Your task to perform on an android device: choose inbox layout in the gmail app Image 0: 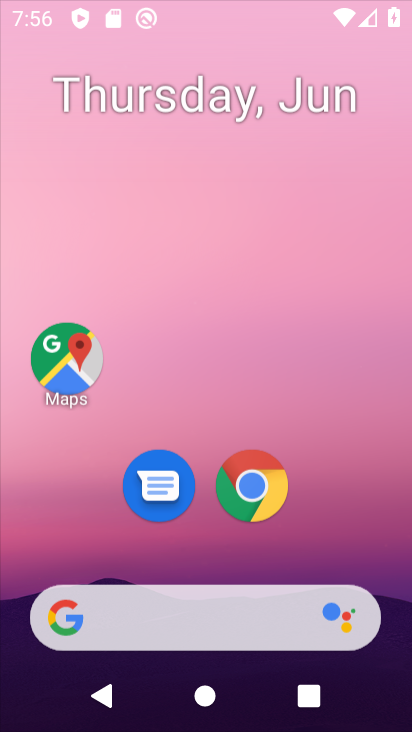
Step 0: click (243, 99)
Your task to perform on an android device: choose inbox layout in the gmail app Image 1: 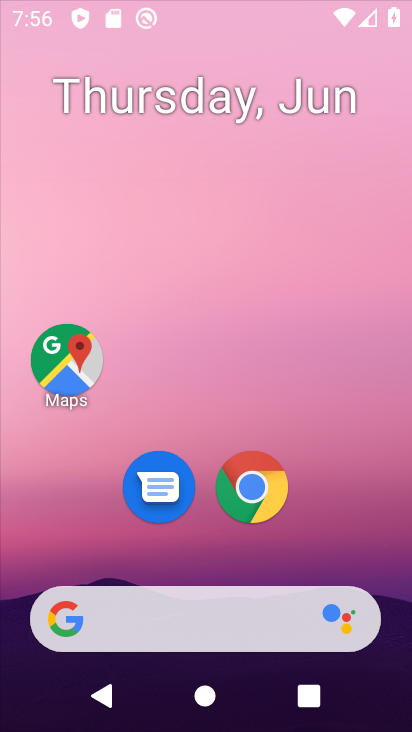
Step 1: drag from (218, 549) to (243, 140)
Your task to perform on an android device: choose inbox layout in the gmail app Image 2: 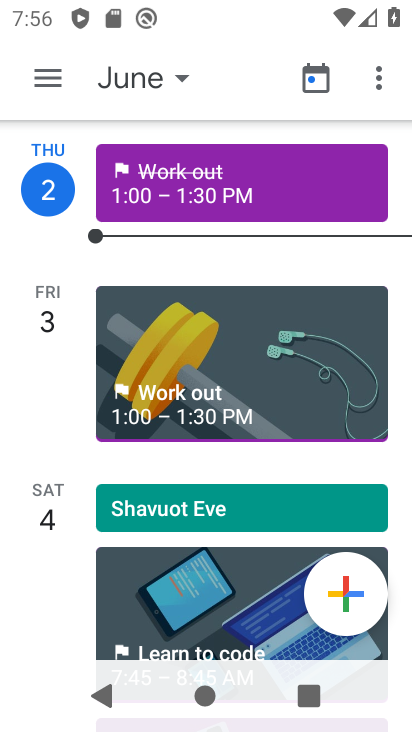
Step 2: drag from (227, 543) to (261, 153)
Your task to perform on an android device: choose inbox layout in the gmail app Image 3: 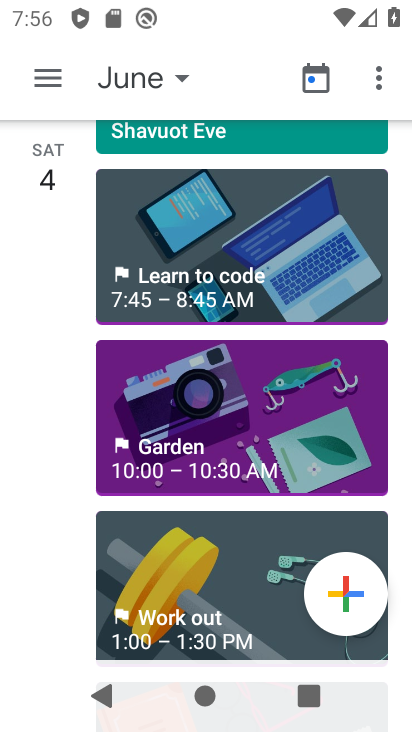
Step 3: press home button
Your task to perform on an android device: choose inbox layout in the gmail app Image 4: 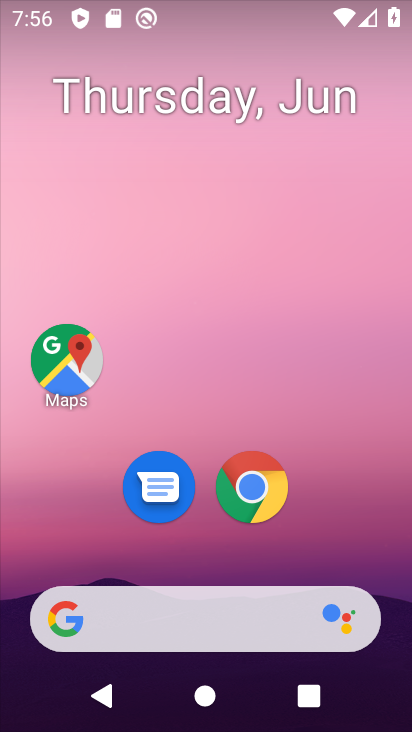
Step 4: drag from (209, 561) to (272, 141)
Your task to perform on an android device: choose inbox layout in the gmail app Image 5: 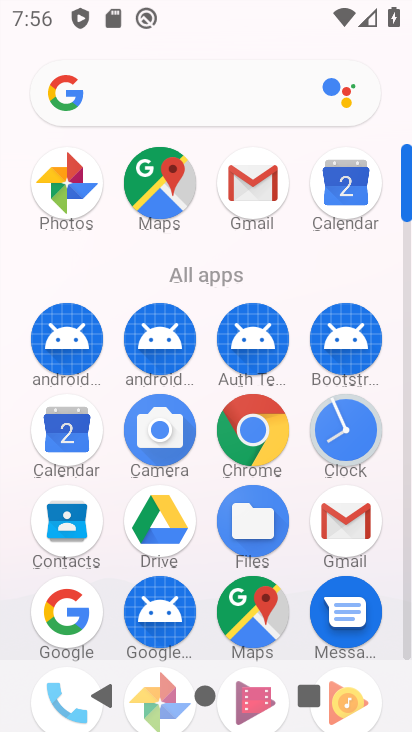
Step 5: click (349, 513)
Your task to perform on an android device: choose inbox layout in the gmail app Image 6: 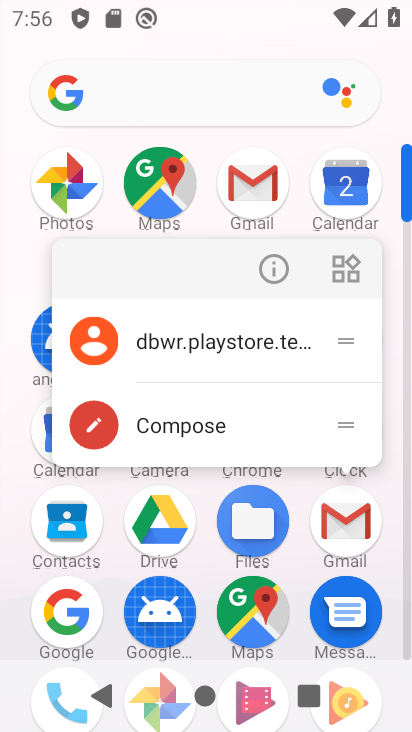
Step 6: click (293, 278)
Your task to perform on an android device: choose inbox layout in the gmail app Image 7: 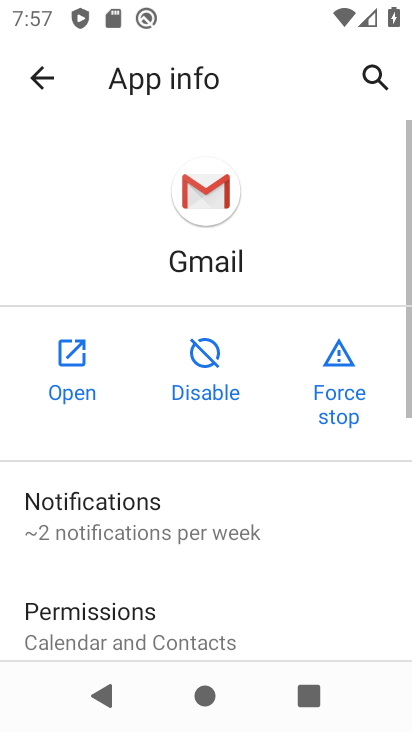
Step 7: click (59, 388)
Your task to perform on an android device: choose inbox layout in the gmail app Image 8: 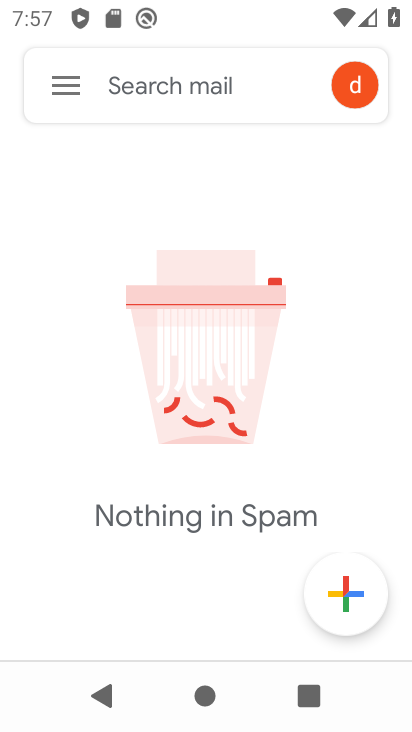
Step 8: drag from (127, 516) to (200, 127)
Your task to perform on an android device: choose inbox layout in the gmail app Image 9: 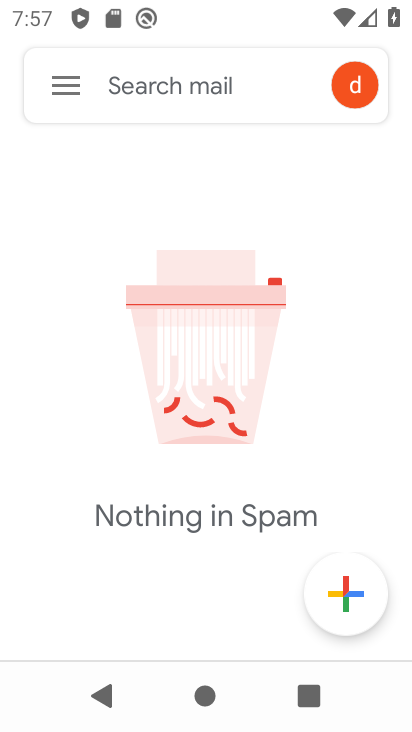
Step 9: click (68, 68)
Your task to perform on an android device: choose inbox layout in the gmail app Image 10: 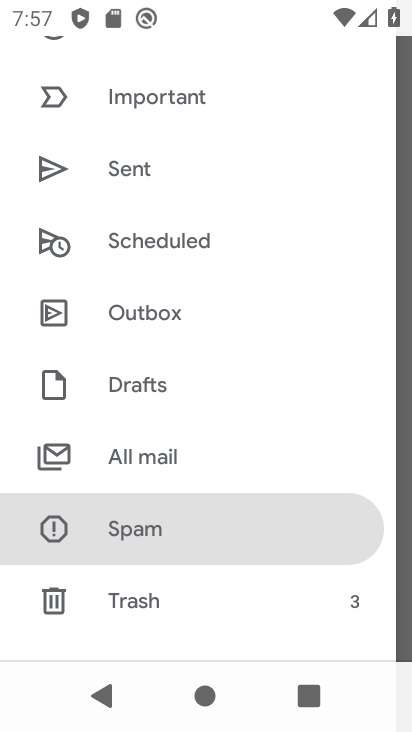
Step 10: drag from (150, 214) to (156, 728)
Your task to perform on an android device: choose inbox layout in the gmail app Image 11: 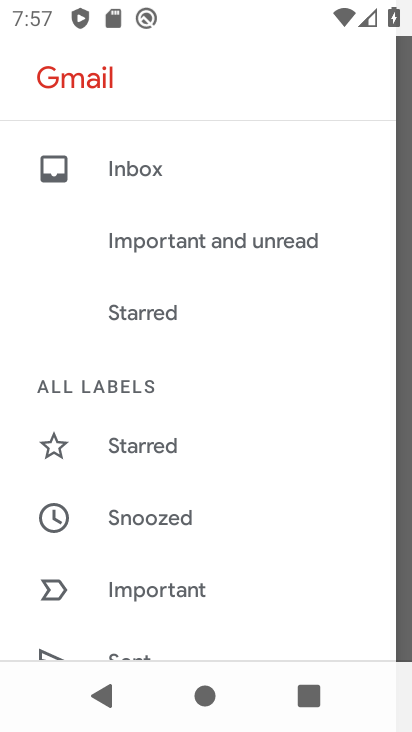
Step 11: click (195, 210)
Your task to perform on an android device: choose inbox layout in the gmail app Image 12: 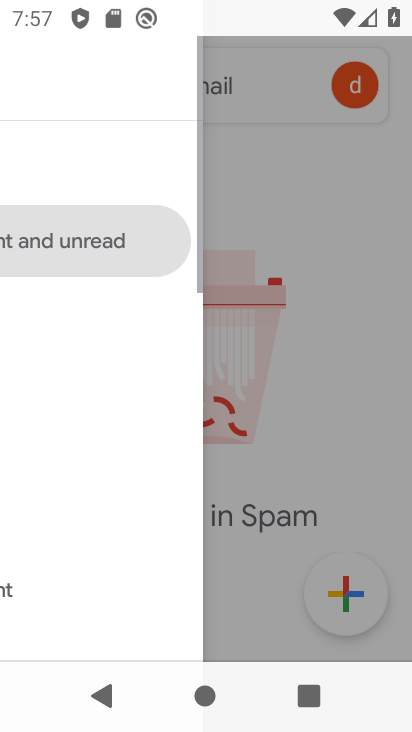
Step 12: click (182, 163)
Your task to perform on an android device: choose inbox layout in the gmail app Image 13: 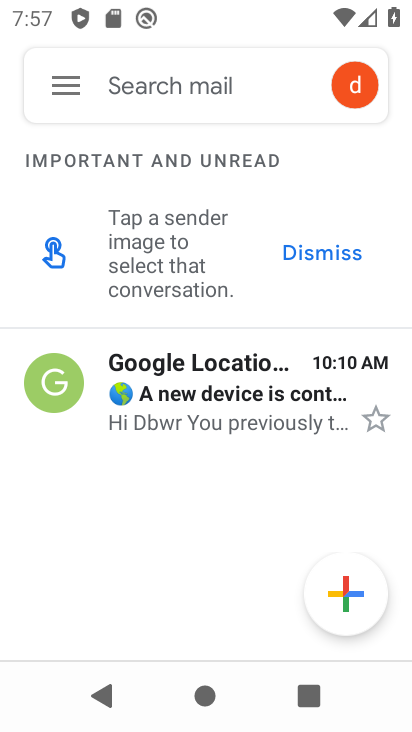
Step 13: click (63, 73)
Your task to perform on an android device: choose inbox layout in the gmail app Image 14: 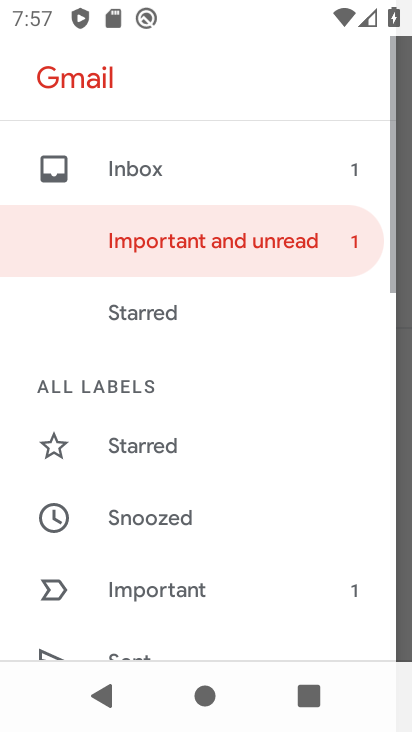
Step 14: click (147, 148)
Your task to perform on an android device: choose inbox layout in the gmail app Image 15: 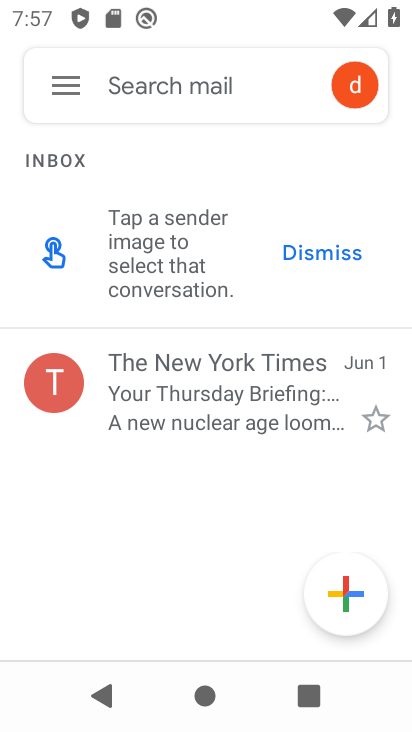
Step 15: task complete